Your task to perform on an android device: Check the settings for the Spotify app Image 0: 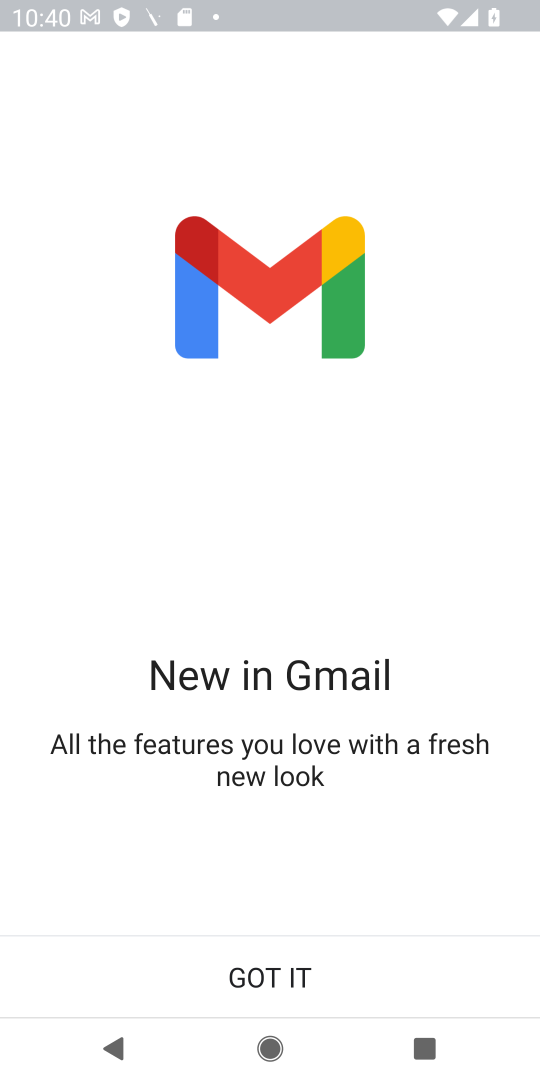
Step 0: press home button
Your task to perform on an android device: Check the settings for the Spotify app Image 1: 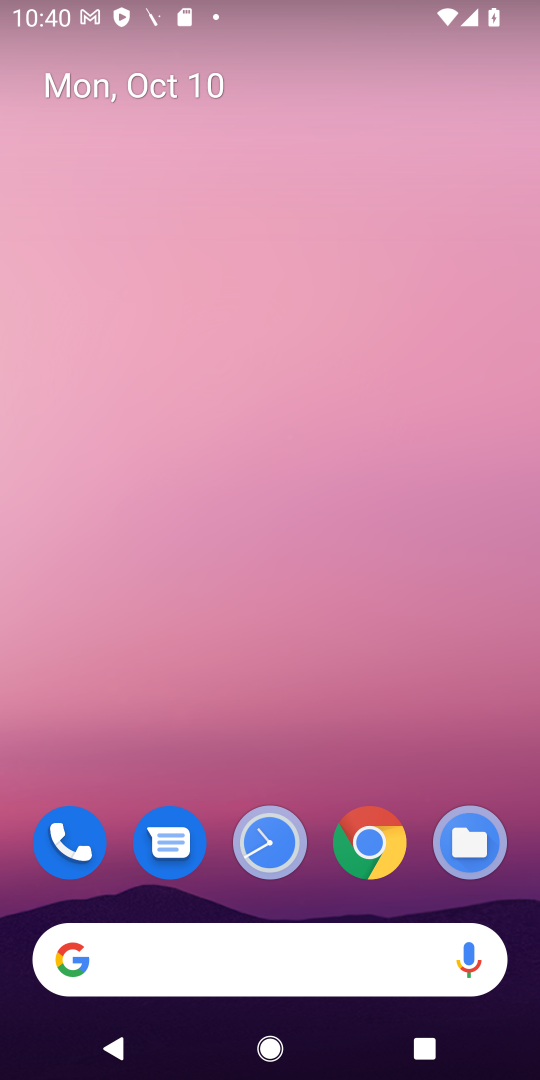
Step 1: task complete